Your task to perform on an android device: Open calendar and show me the fourth week of next month Image 0: 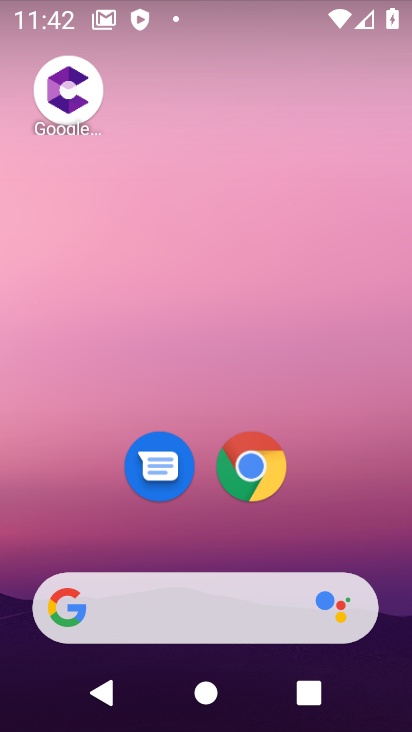
Step 0: drag from (150, 579) to (265, 89)
Your task to perform on an android device: Open calendar and show me the fourth week of next month Image 1: 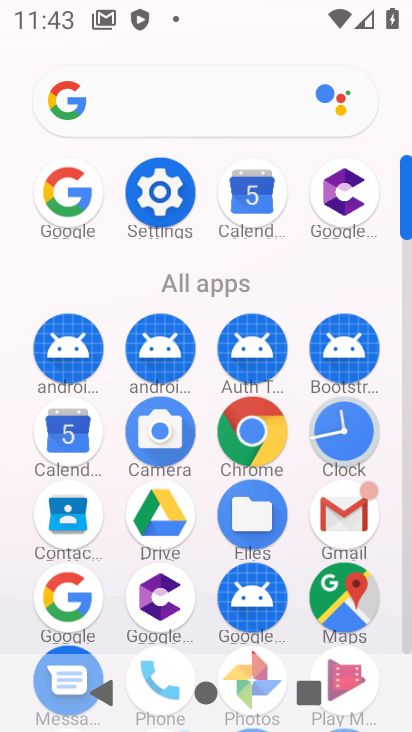
Step 1: click (68, 454)
Your task to perform on an android device: Open calendar and show me the fourth week of next month Image 2: 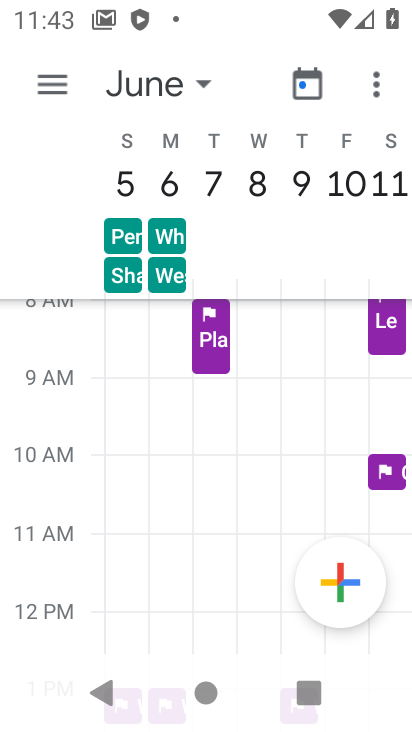
Step 2: click (173, 89)
Your task to perform on an android device: Open calendar and show me the fourth week of next month Image 3: 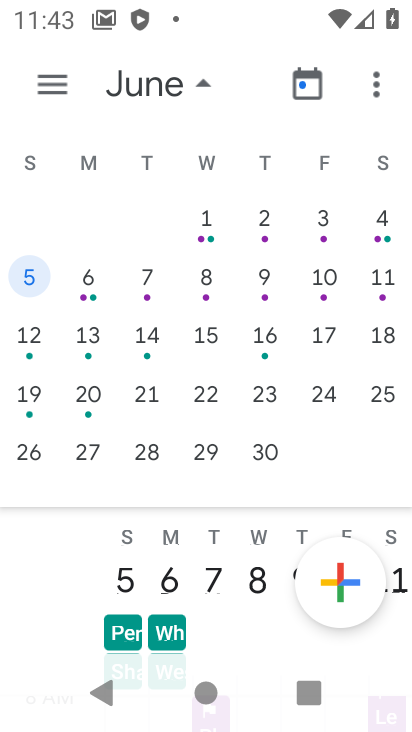
Step 3: click (36, 453)
Your task to perform on an android device: Open calendar and show me the fourth week of next month Image 4: 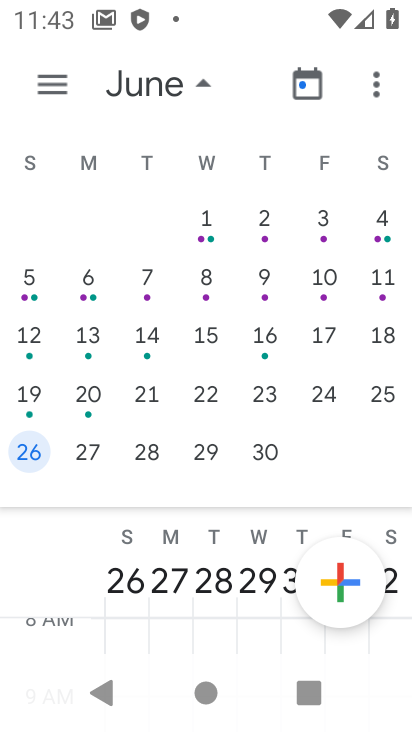
Step 4: click (35, 454)
Your task to perform on an android device: Open calendar and show me the fourth week of next month Image 5: 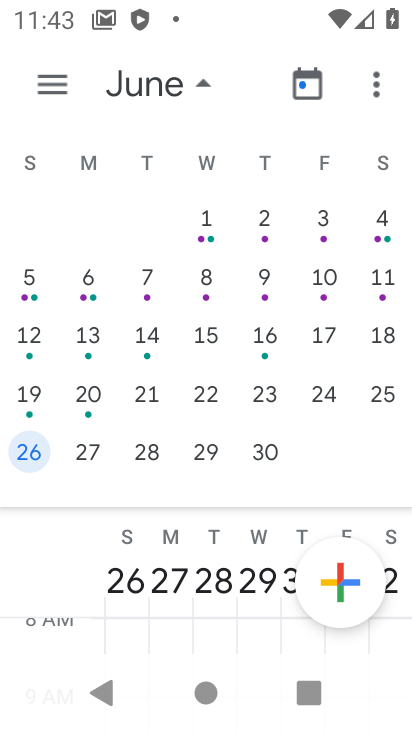
Step 5: click (183, 96)
Your task to perform on an android device: Open calendar and show me the fourth week of next month Image 6: 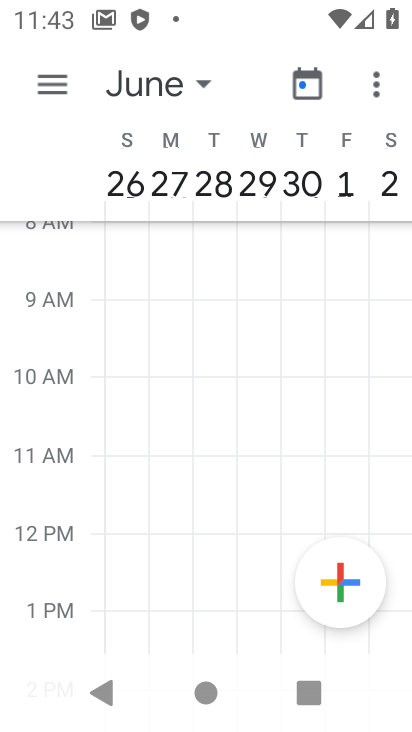
Step 6: task complete